Your task to perform on an android device: toggle priority inbox in the gmail app Image 0: 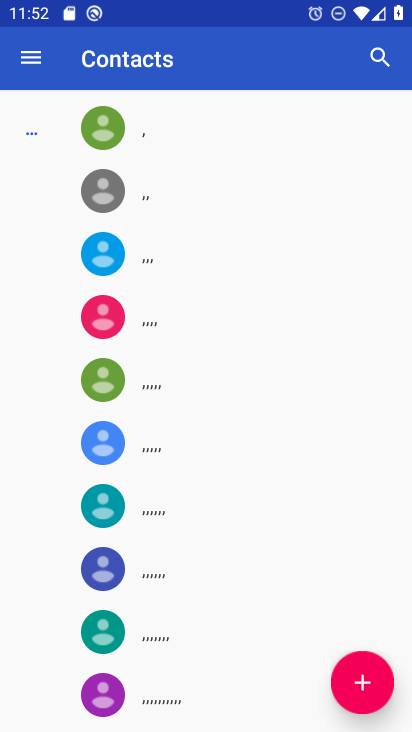
Step 0: press home button
Your task to perform on an android device: toggle priority inbox in the gmail app Image 1: 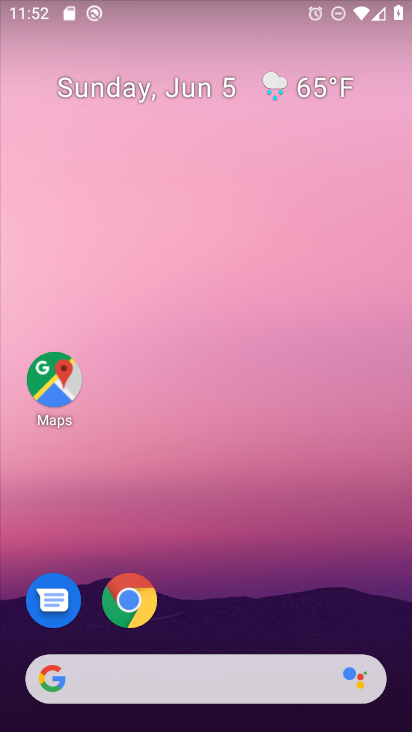
Step 1: drag from (368, 621) to (261, 76)
Your task to perform on an android device: toggle priority inbox in the gmail app Image 2: 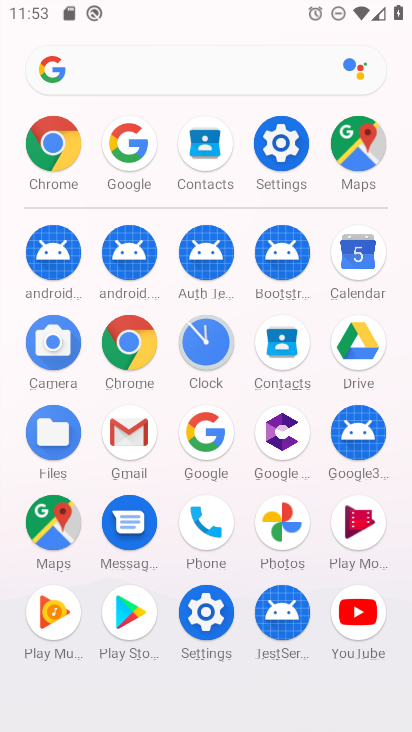
Step 2: click (139, 446)
Your task to perform on an android device: toggle priority inbox in the gmail app Image 3: 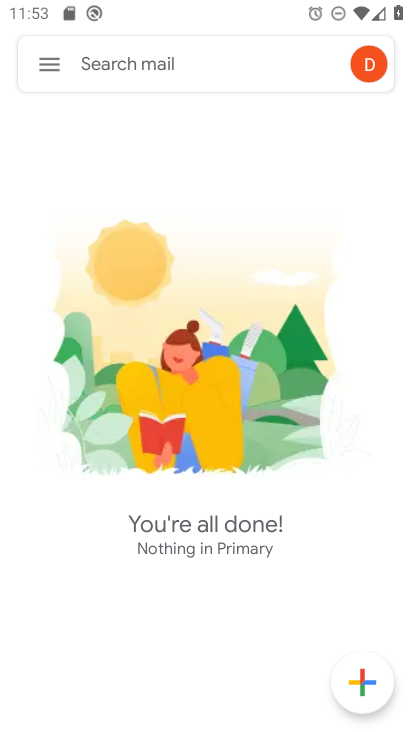
Step 3: click (44, 63)
Your task to perform on an android device: toggle priority inbox in the gmail app Image 4: 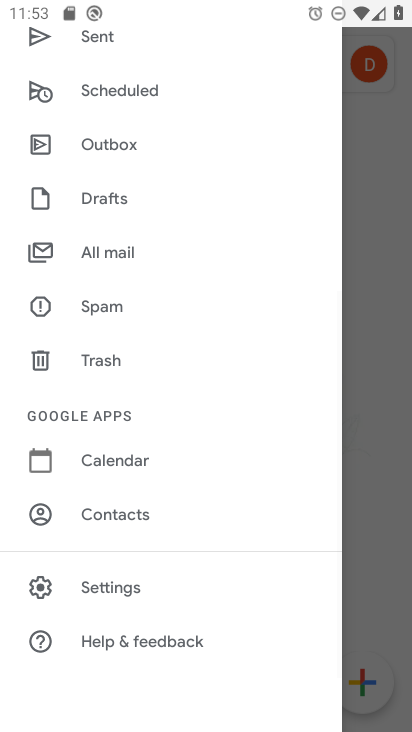
Step 4: click (112, 590)
Your task to perform on an android device: toggle priority inbox in the gmail app Image 5: 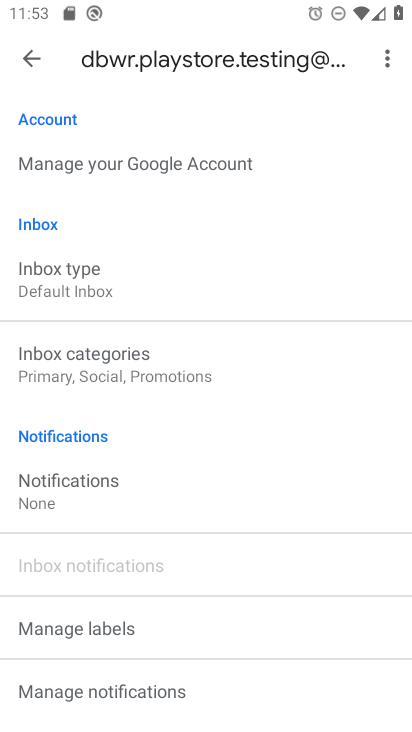
Step 5: click (141, 306)
Your task to perform on an android device: toggle priority inbox in the gmail app Image 6: 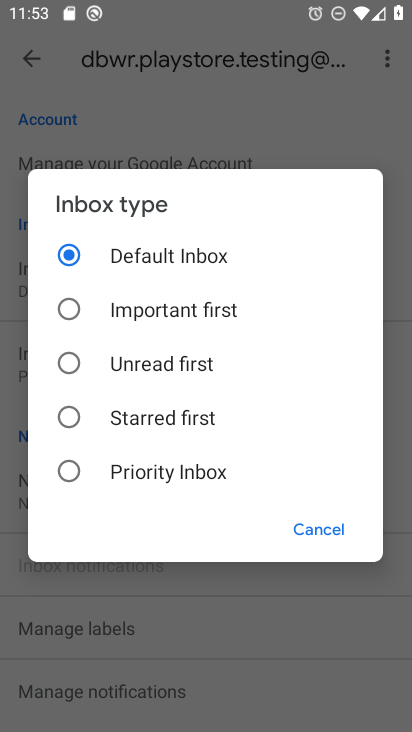
Step 6: task complete